Your task to perform on an android device: Go to Amazon Image 0: 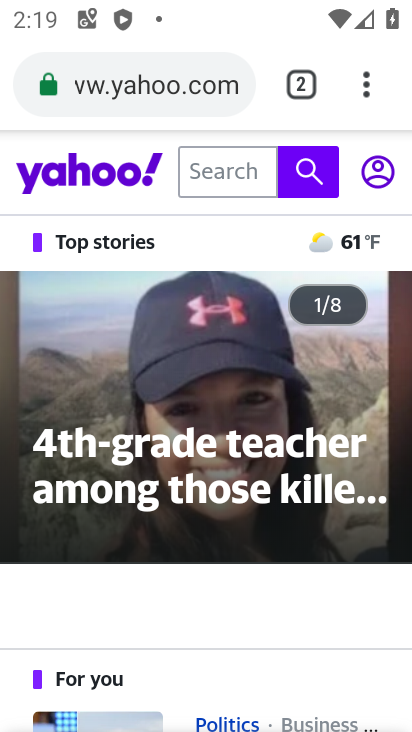
Step 0: click (299, 83)
Your task to perform on an android device: Go to Amazon Image 1: 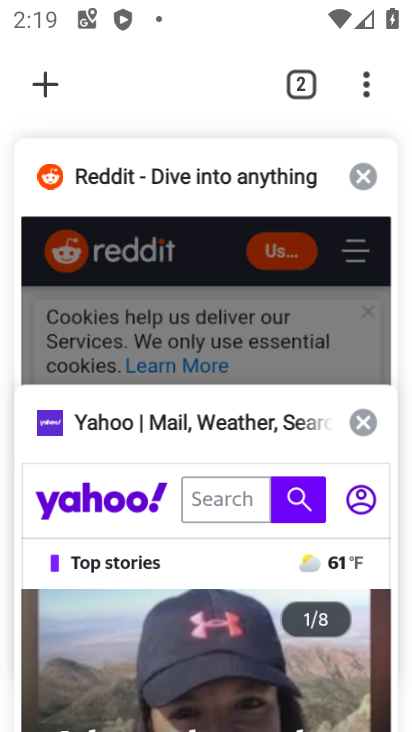
Step 1: click (37, 85)
Your task to perform on an android device: Go to Amazon Image 2: 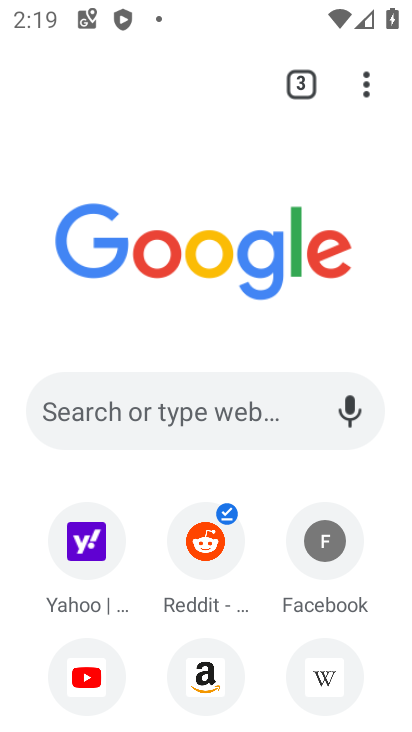
Step 2: click (204, 676)
Your task to perform on an android device: Go to Amazon Image 3: 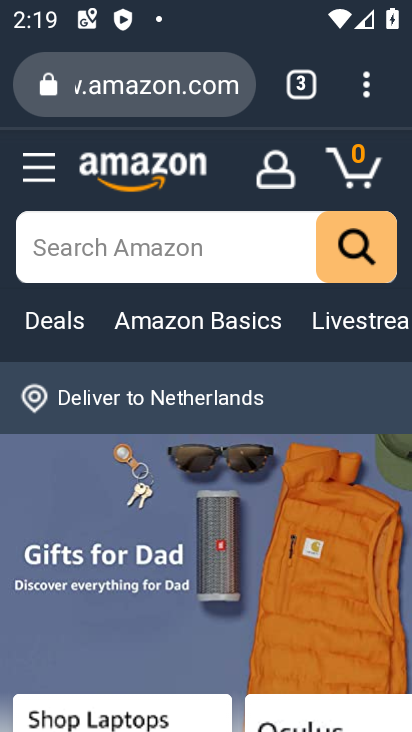
Step 3: task complete